Your task to perform on an android device: Go to Wikipedia Image 0: 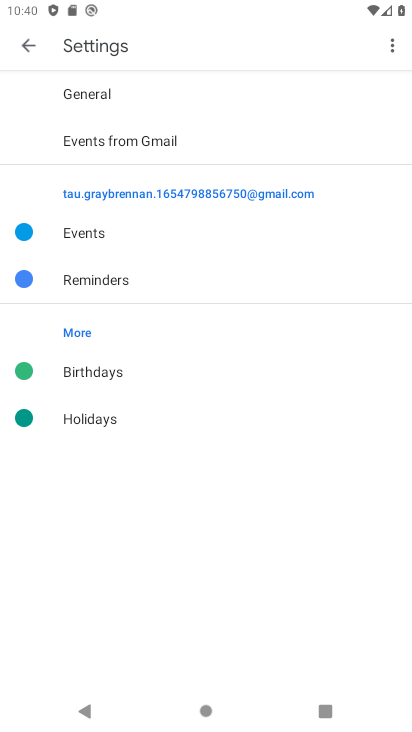
Step 0: press home button
Your task to perform on an android device: Go to Wikipedia Image 1: 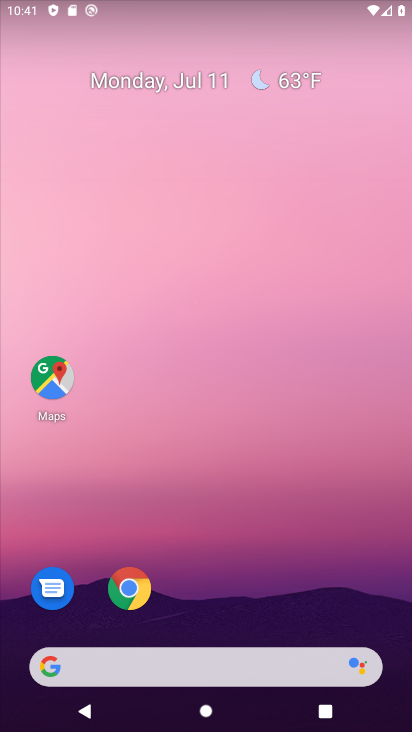
Step 1: drag from (231, 685) to (250, 138)
Your task to perform on an android device: Go to Wikipedia Image 2: 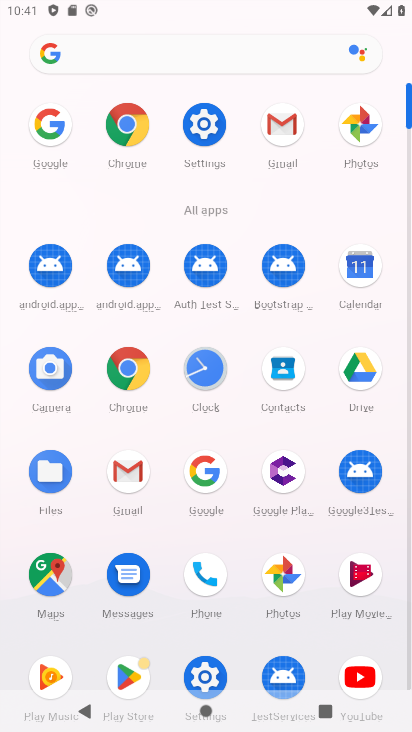
Step 2: click (122, 122)
Your task to perform on an android device: Go to Wikipedia Image 3: 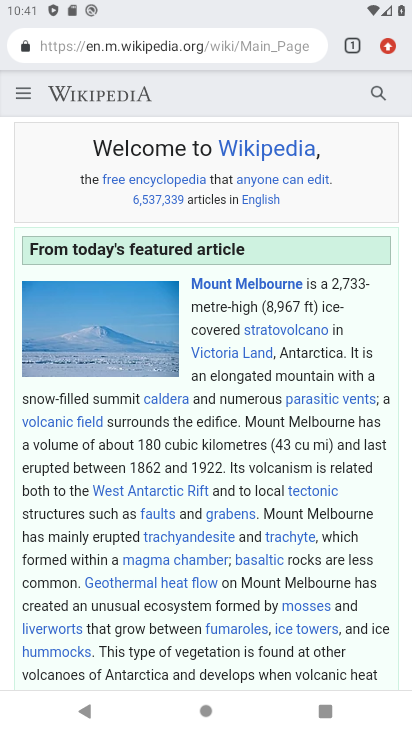
Step 3: task complete